Your task to perform on an android device: turn off location history Image 0: 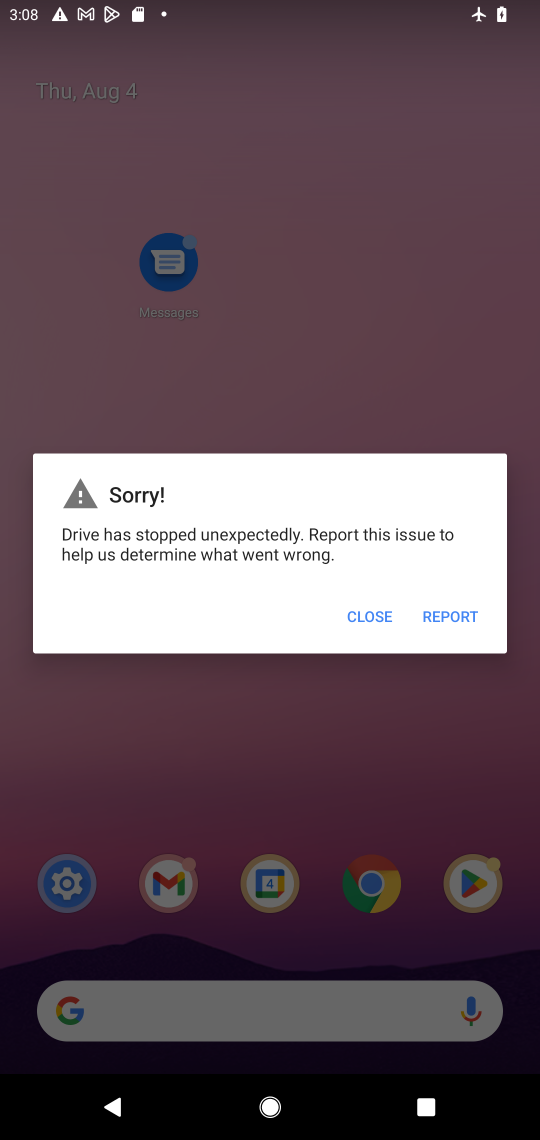
Step 0: press home button
Your task to perform on an android device: turn off location history Image 1: 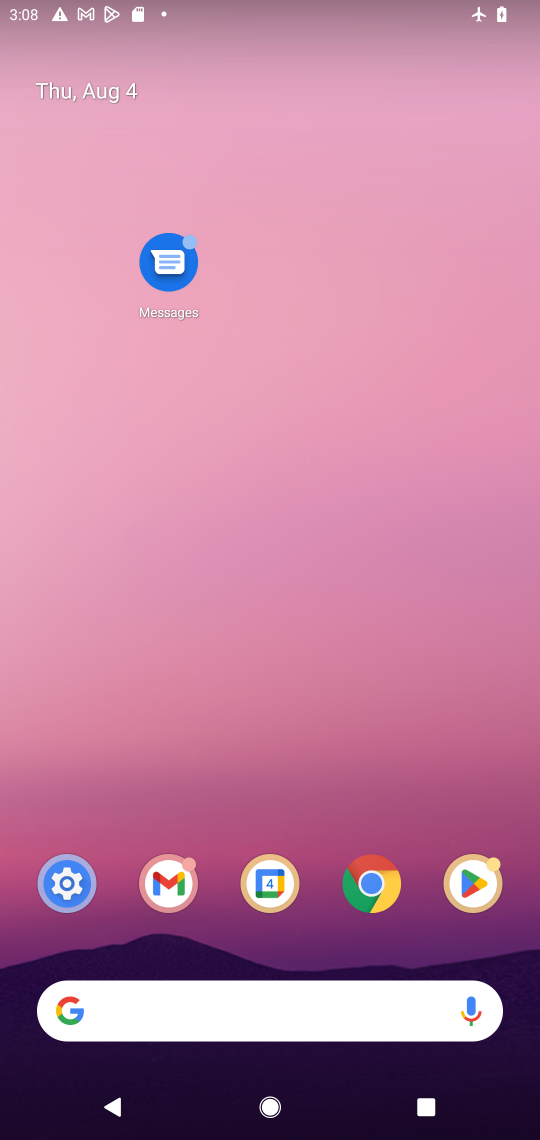
Step 1: drag from (235, 968) to (235, 115)
Your task to perform on an android device: turn off location history Image 2: 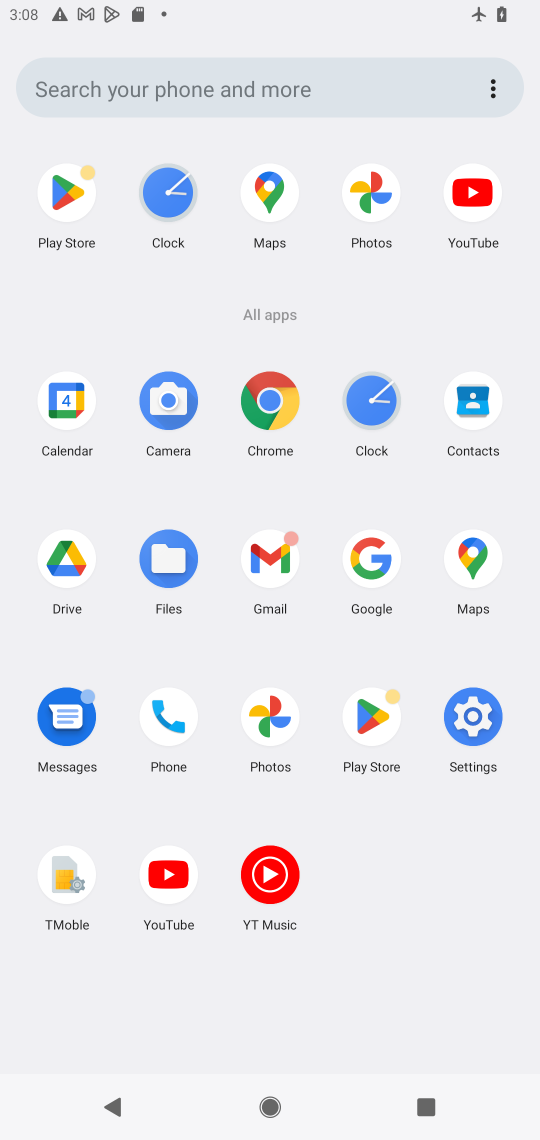
Step 2: click (469, 719)
Your task to perform on an android device: turn off location history Image 3: 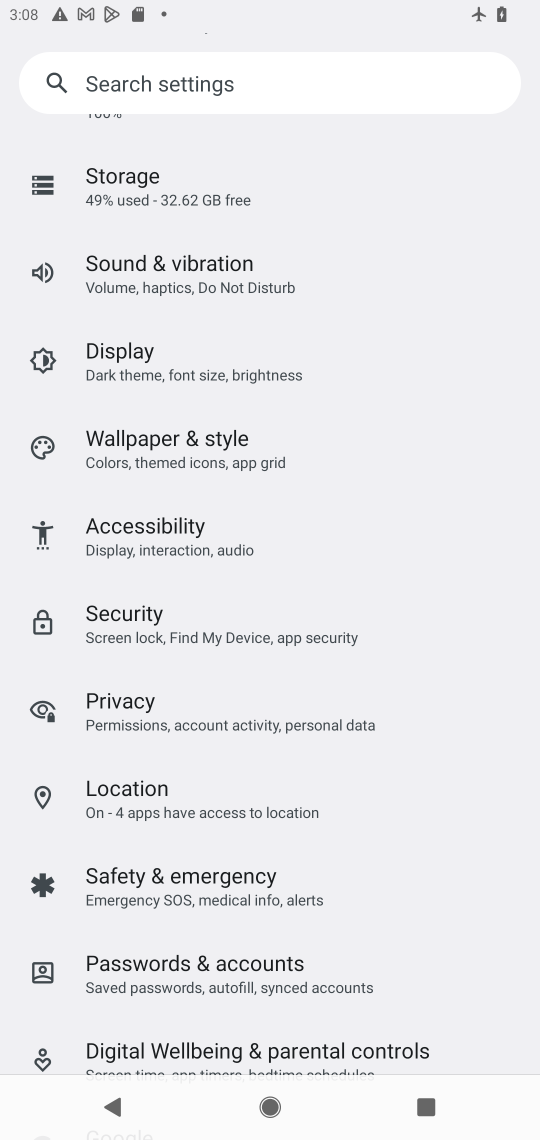
Step 3: click (163, 793)
Your task to perform on an android device: turn off location history Image 4: 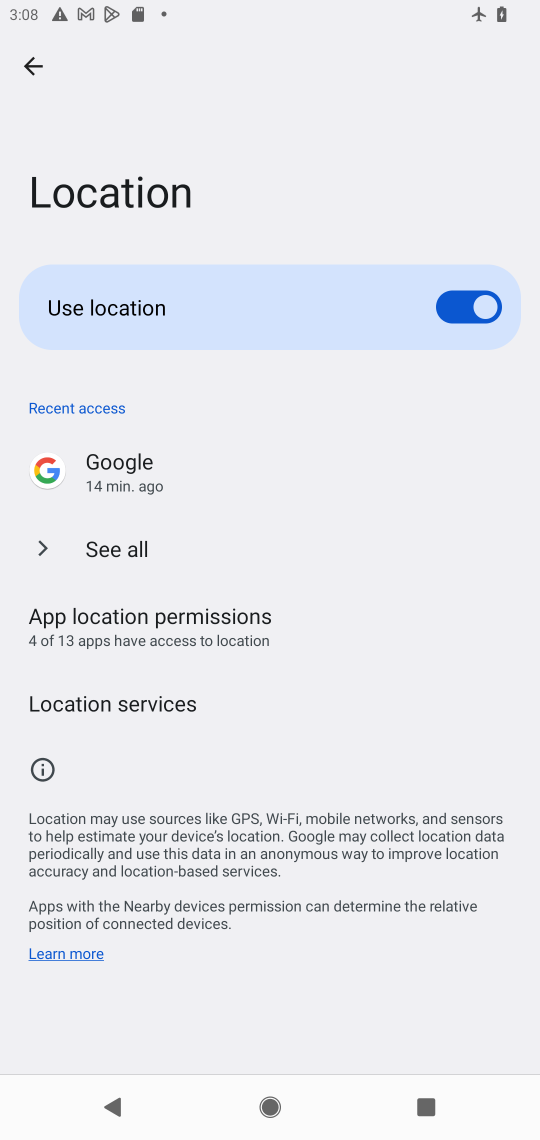
Step 4: click (141, 701)
Your task to perform on an android device: turn off location history Image 5: 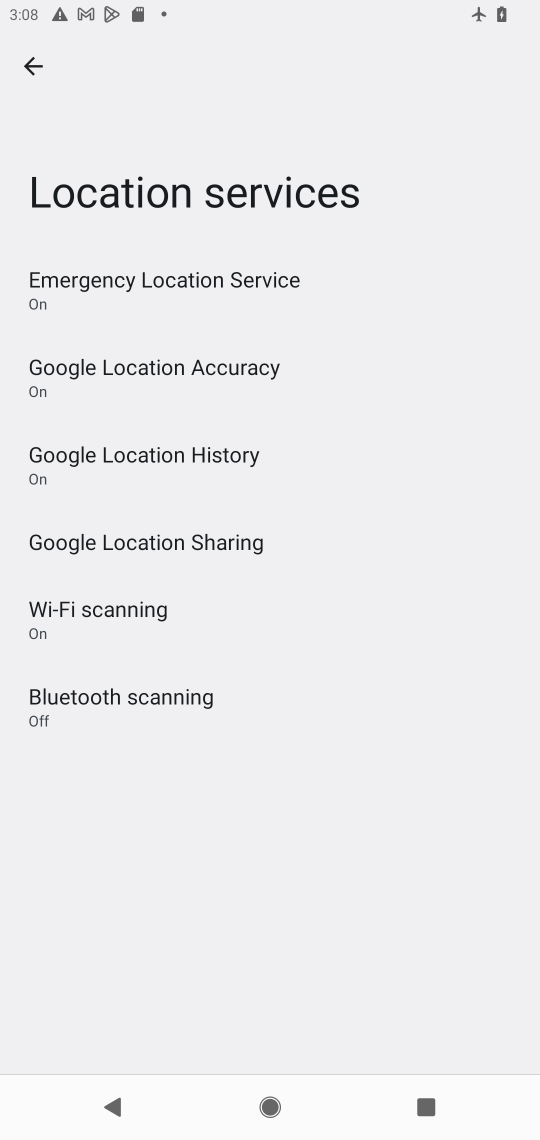
Step 5: click (189, 452)
Your task to perform on an android device: turn off location history Image 6: 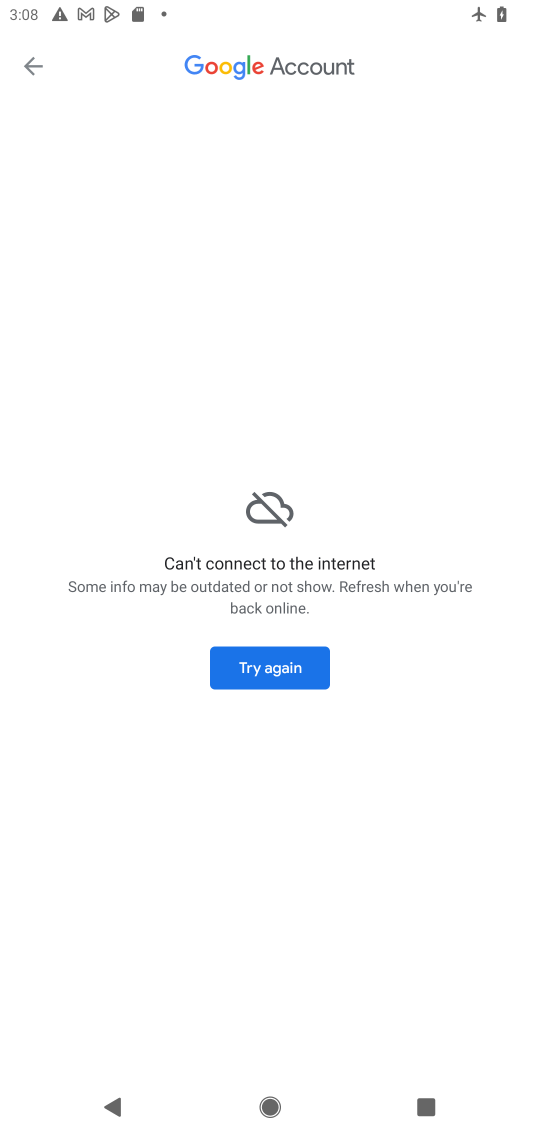
Step 6: task complete